Your task to perform on an android device: View the shopping cart on costco. Add "usb-c" to the cart on costco Image 0: 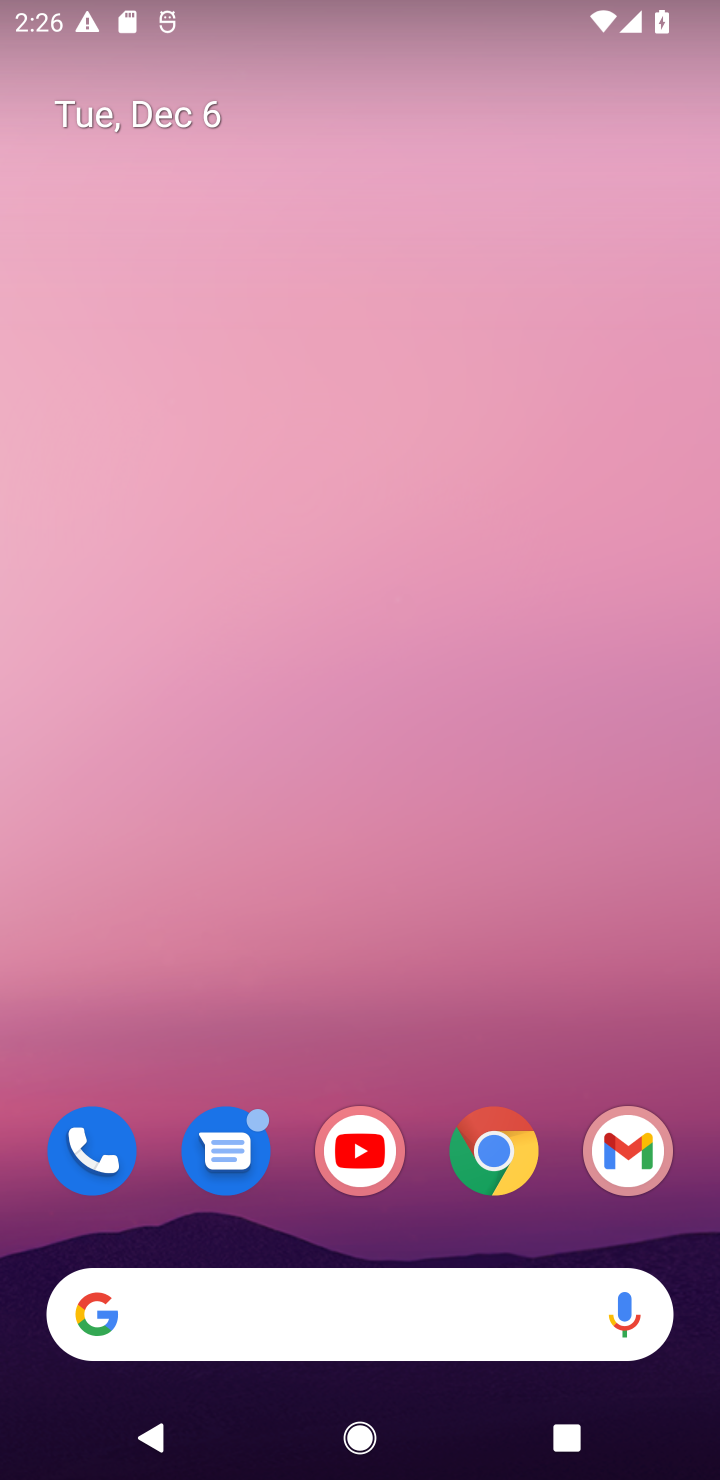
Step 0: click (490, 1164)
Your task to perform on an android device: View the shopping cart on costco. Add "usb-c" to the cart on costco Image 1: 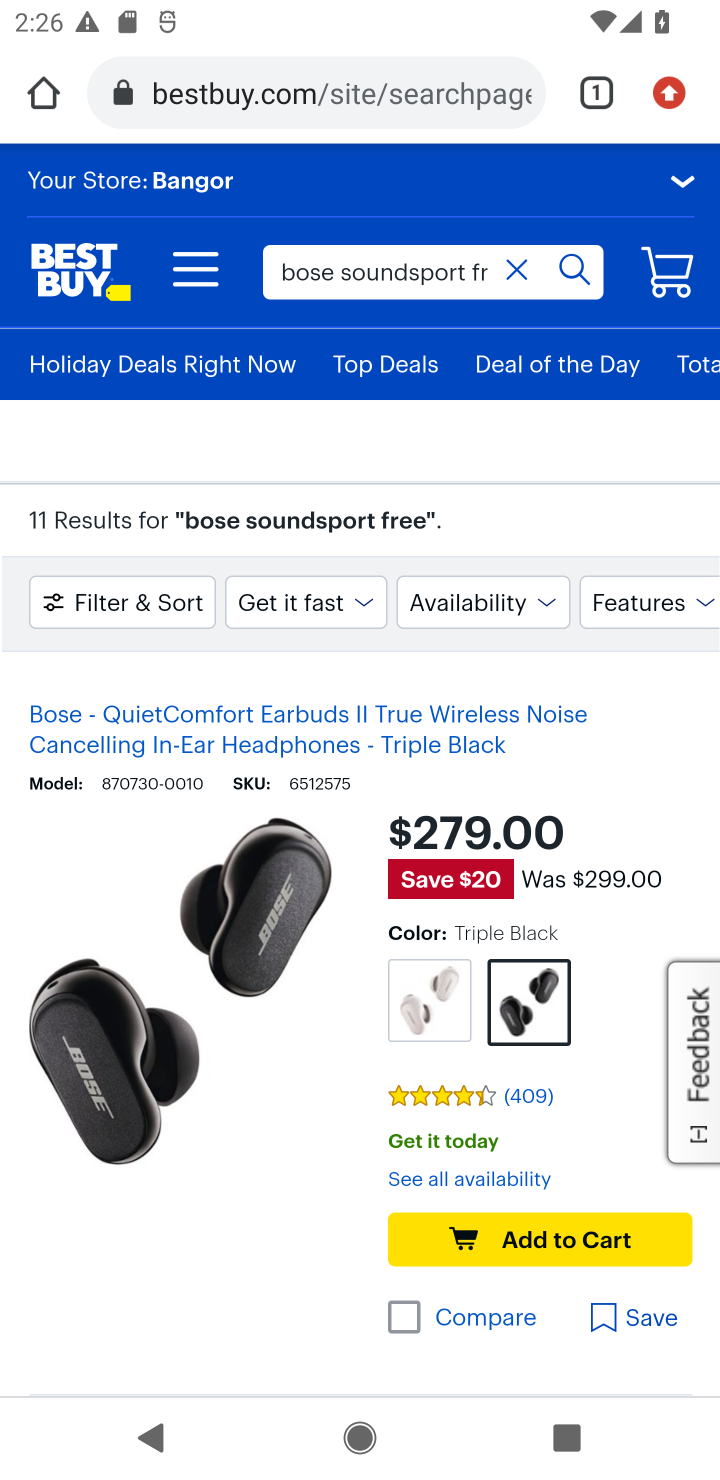
Step 1: click (293, 101)
Your task to perform on an android device: View the shopping cart on costco. Add "usb-c" to the cart on costco Image 2: 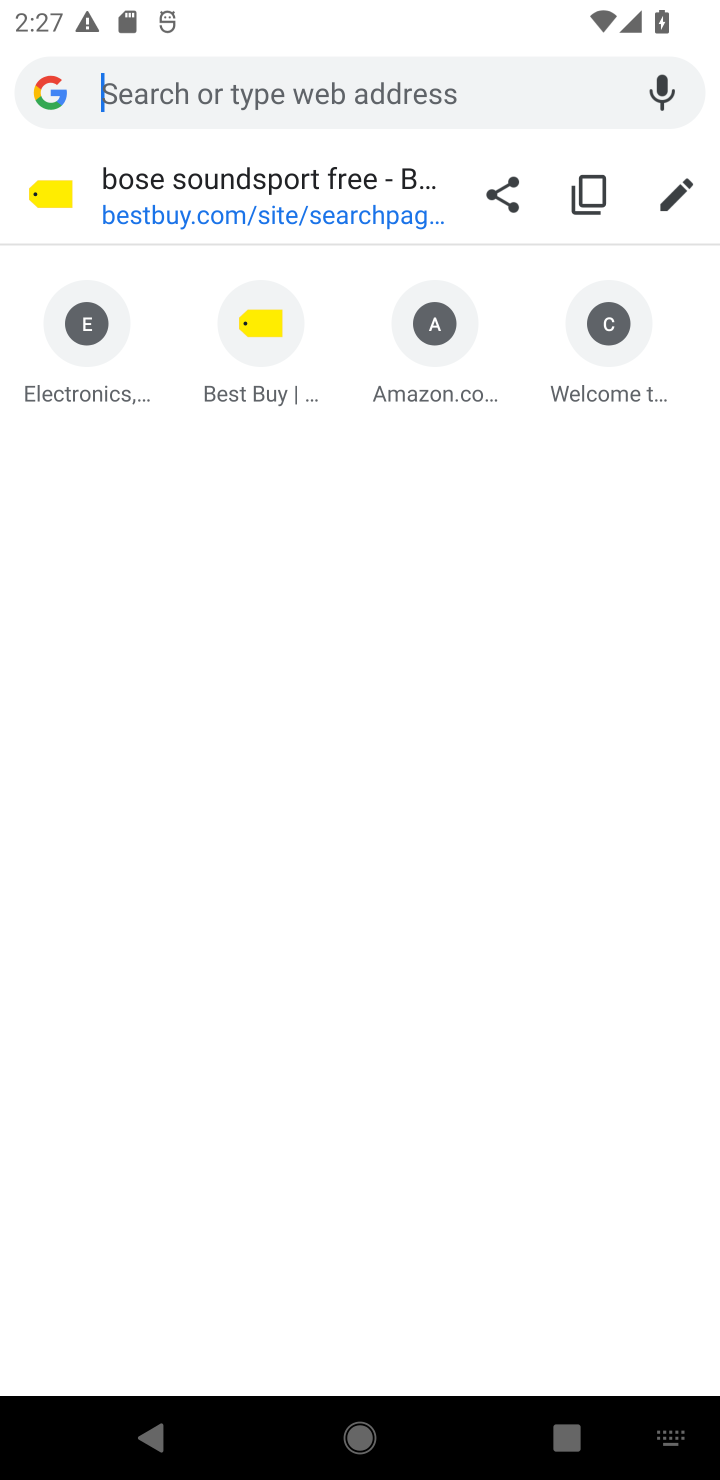
Step 2: type "costco.com"
Your task to perform on an android device: View the shopping cart on costco. Add "usb-c" to the cart on costco Image 3: 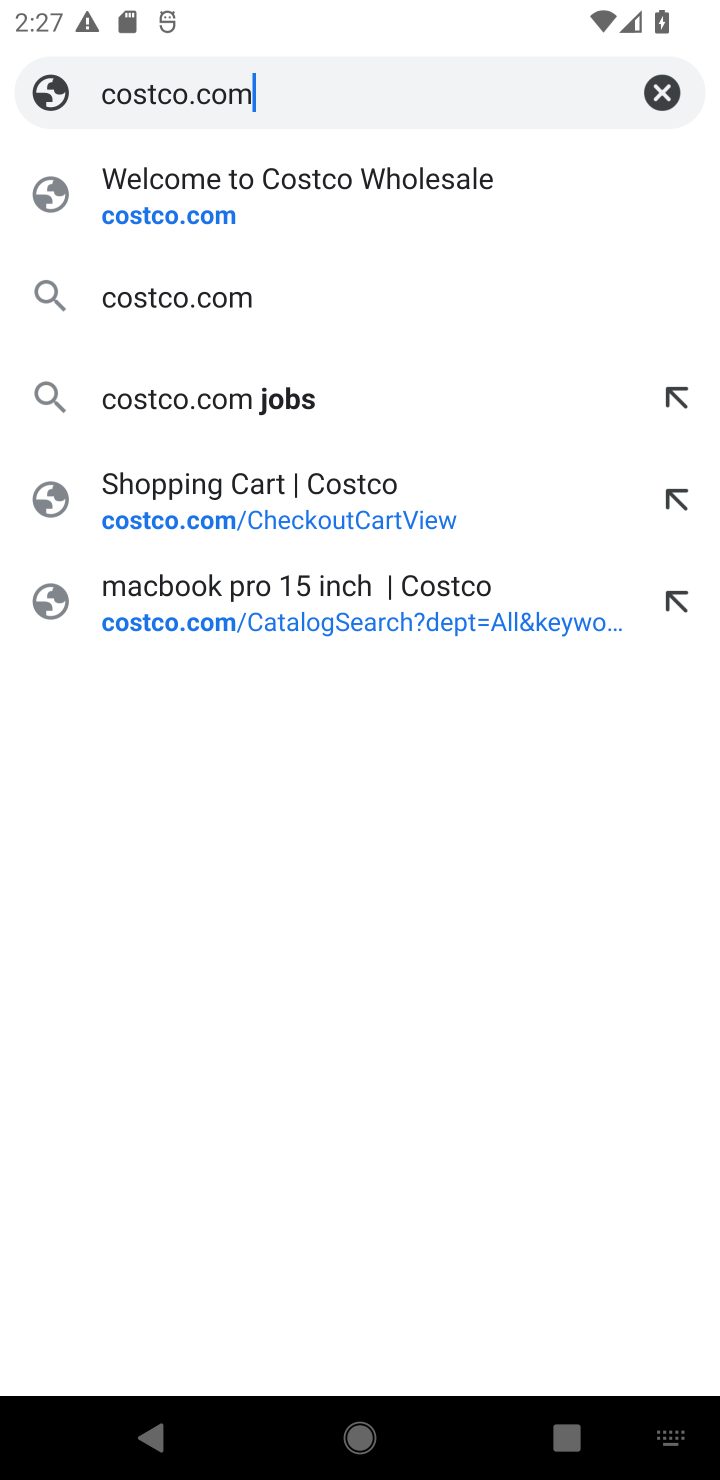
Step 3: click (157, 235)
Your task to perform on an android device: View the shopping cart on costco. Add "usb-c" to the cart on costco Image 4: 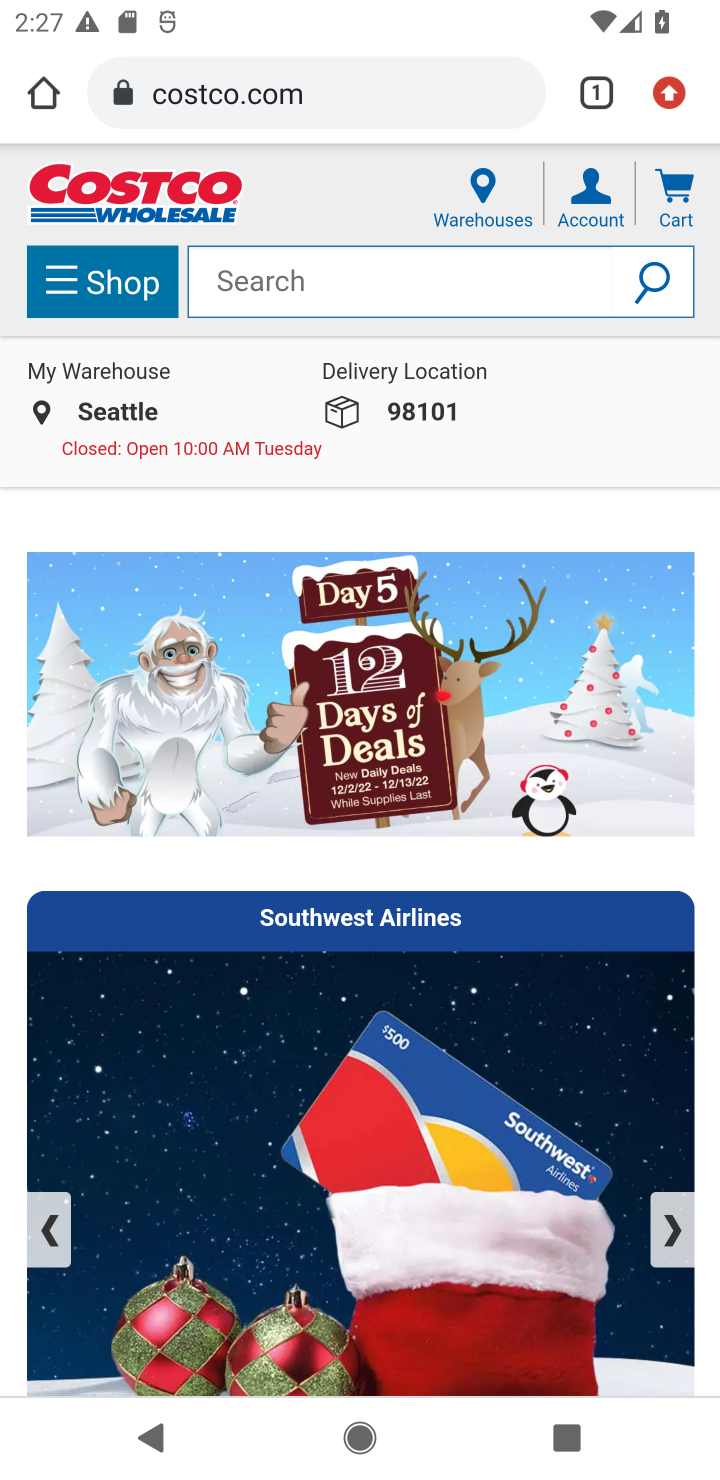
Step 4: click (664, 190)
Your task to perform on an android device: View the shopping cart on costco. Add "usb-c" to the cart on costco Image 5: 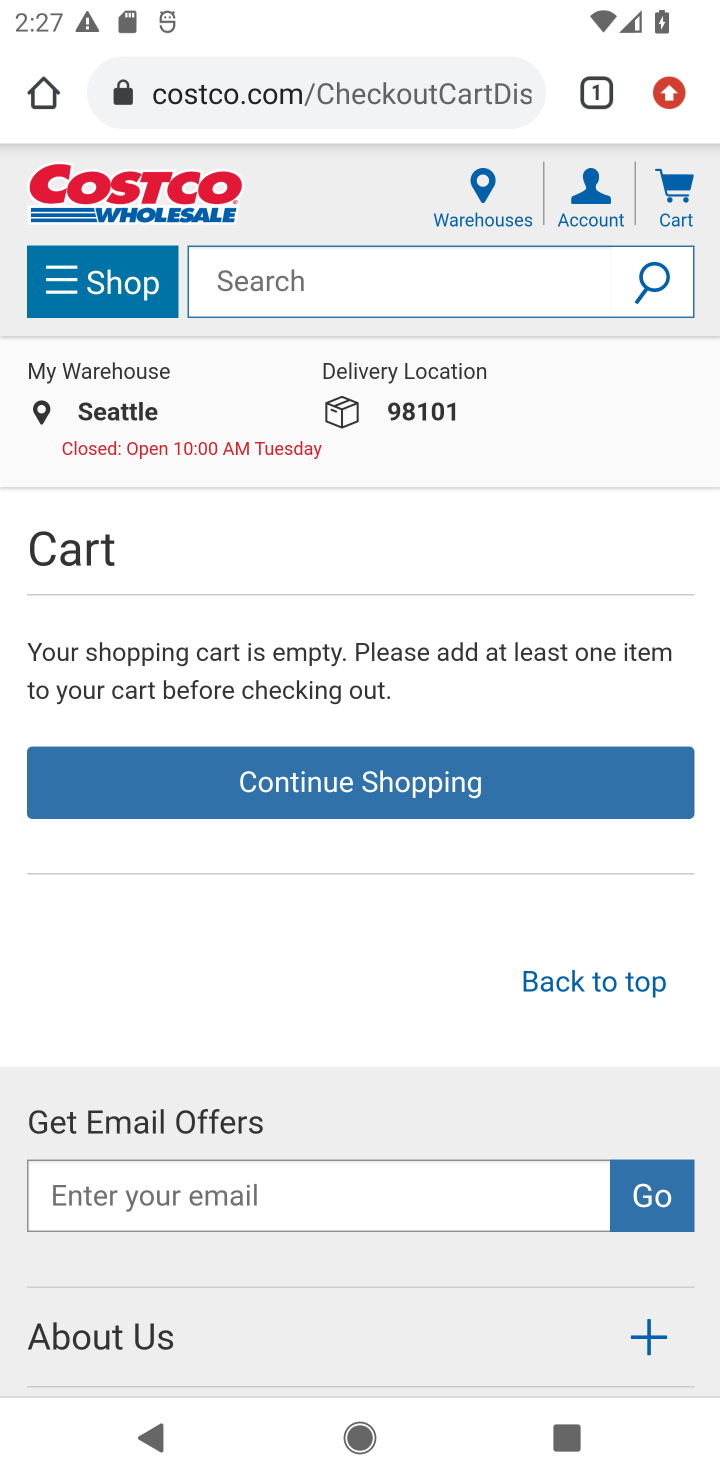
Step 5: click (239, 274)
Your task to perform on an android device: View the shopping cart on costco. Add "usb-c" to the cart on costco Image 6: 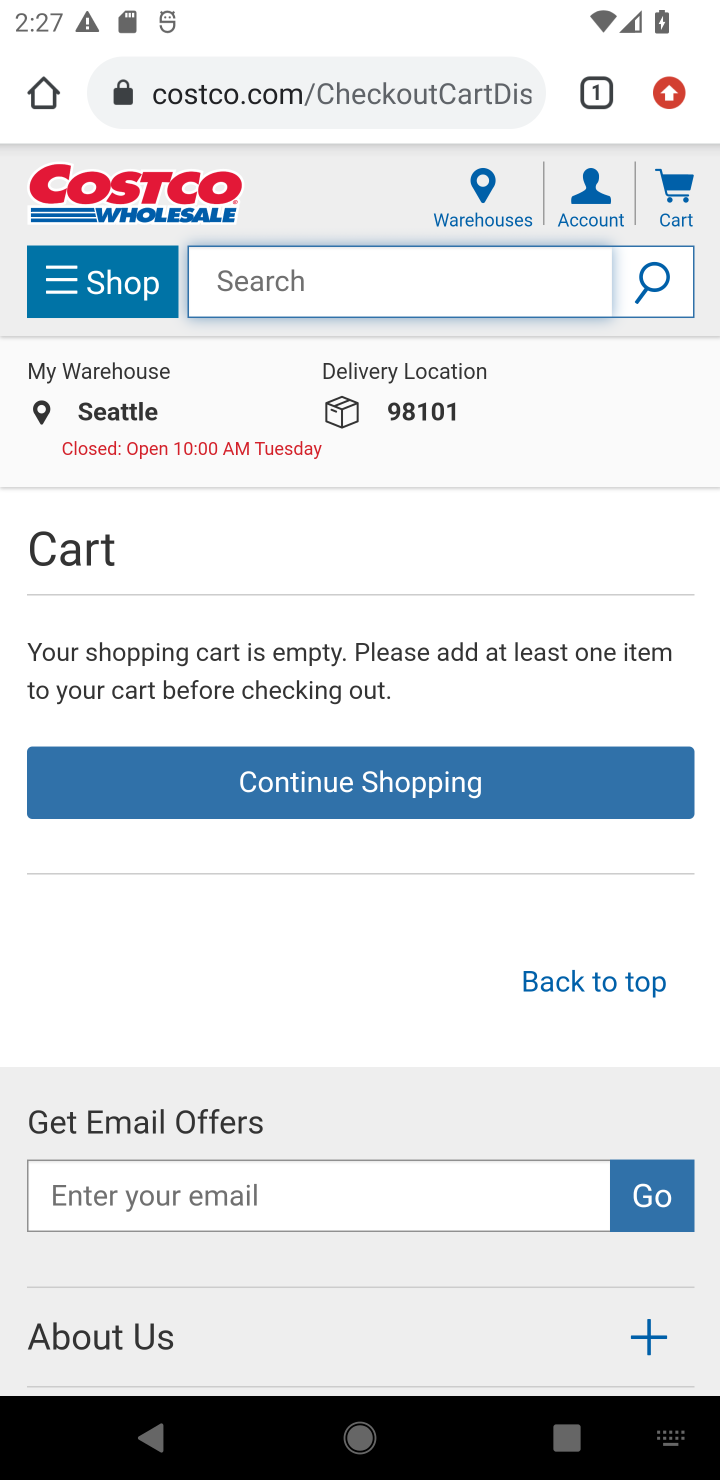
Step 6: type "usb-c"
Your task to perform on an android device: View the shopping cart on costco. Add "usb-c" to the cart on costco Image 7: 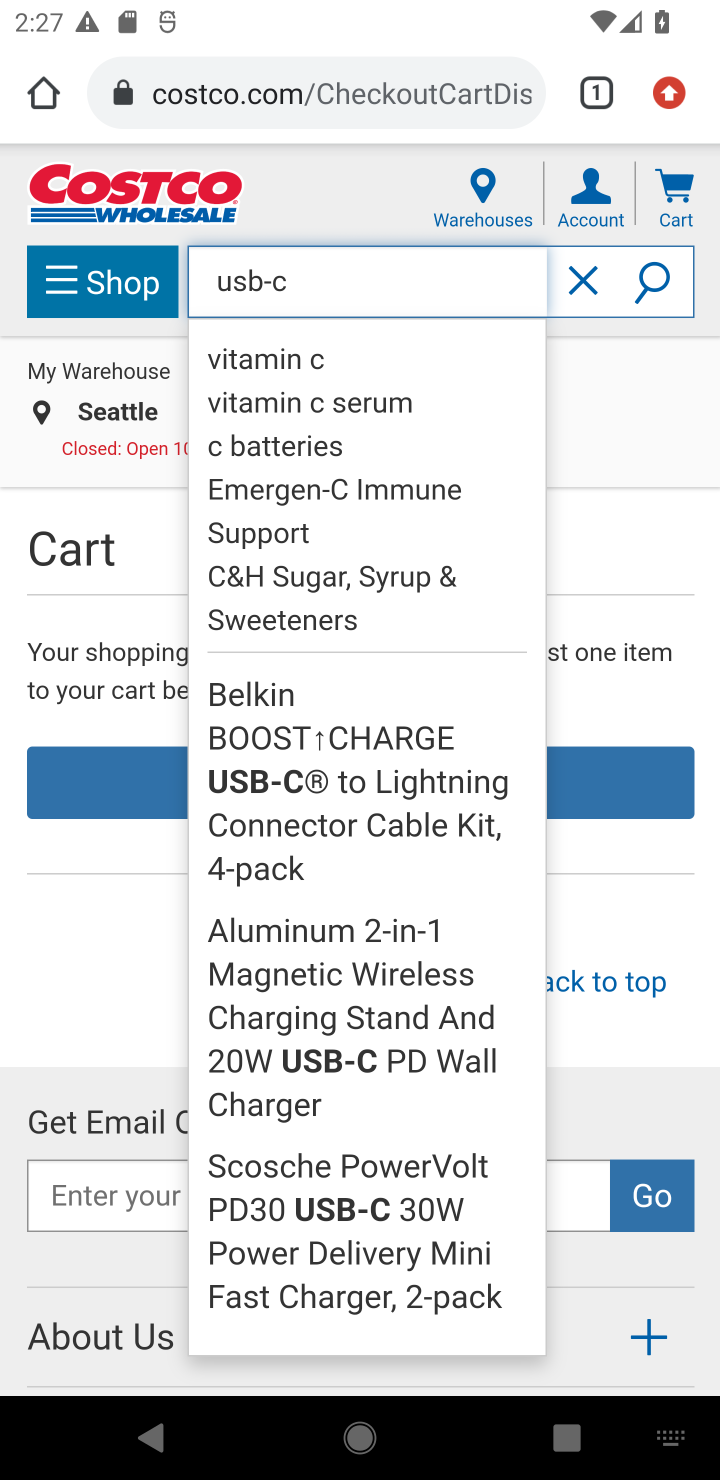
Step 7: click (655, 283)
Your task to perform on an android device: View the shopping cart on costco. Add "usb-c" to the cart on costco Image 8: 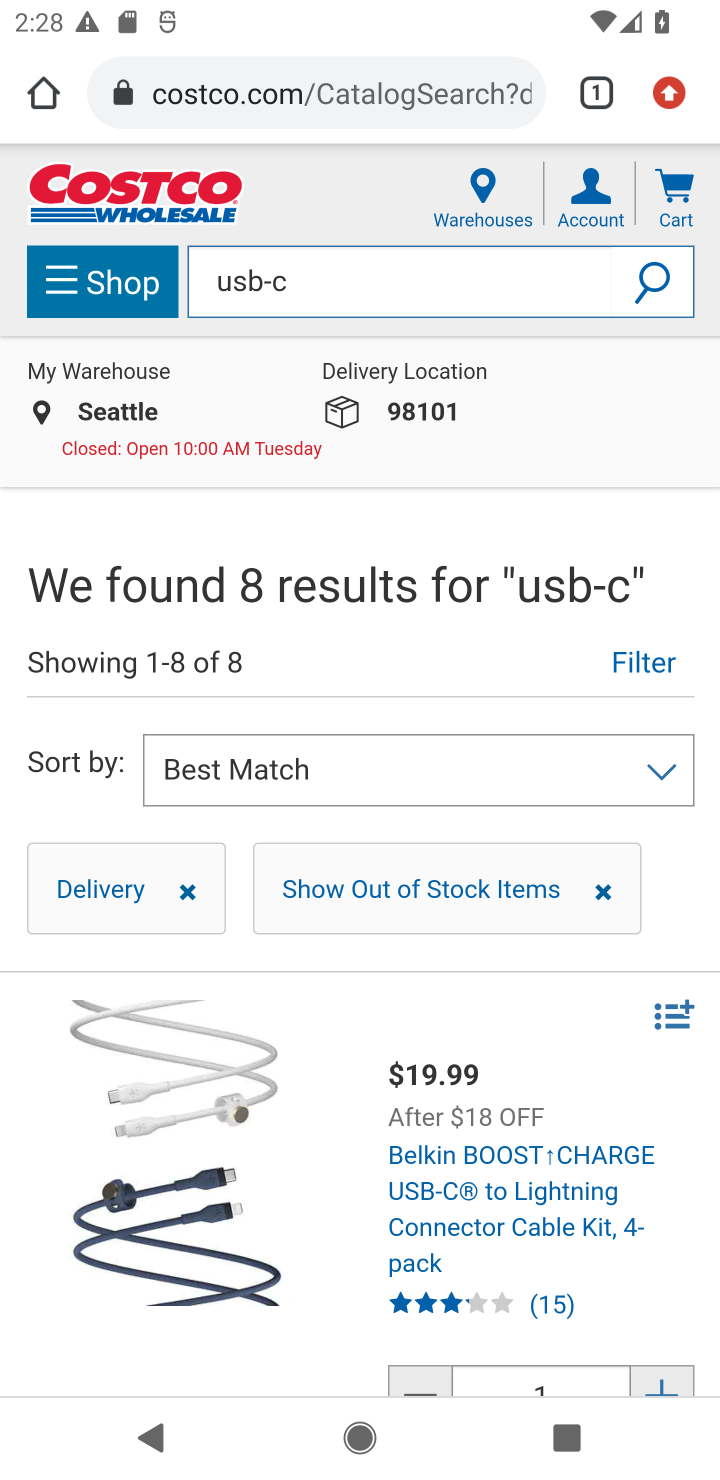
Step 8: drag from (269, 1017) to (303, 484)
Your task to perform on an android device: View the shopping cart on costco. Add "usb-c" to the cart on costco Image 9: 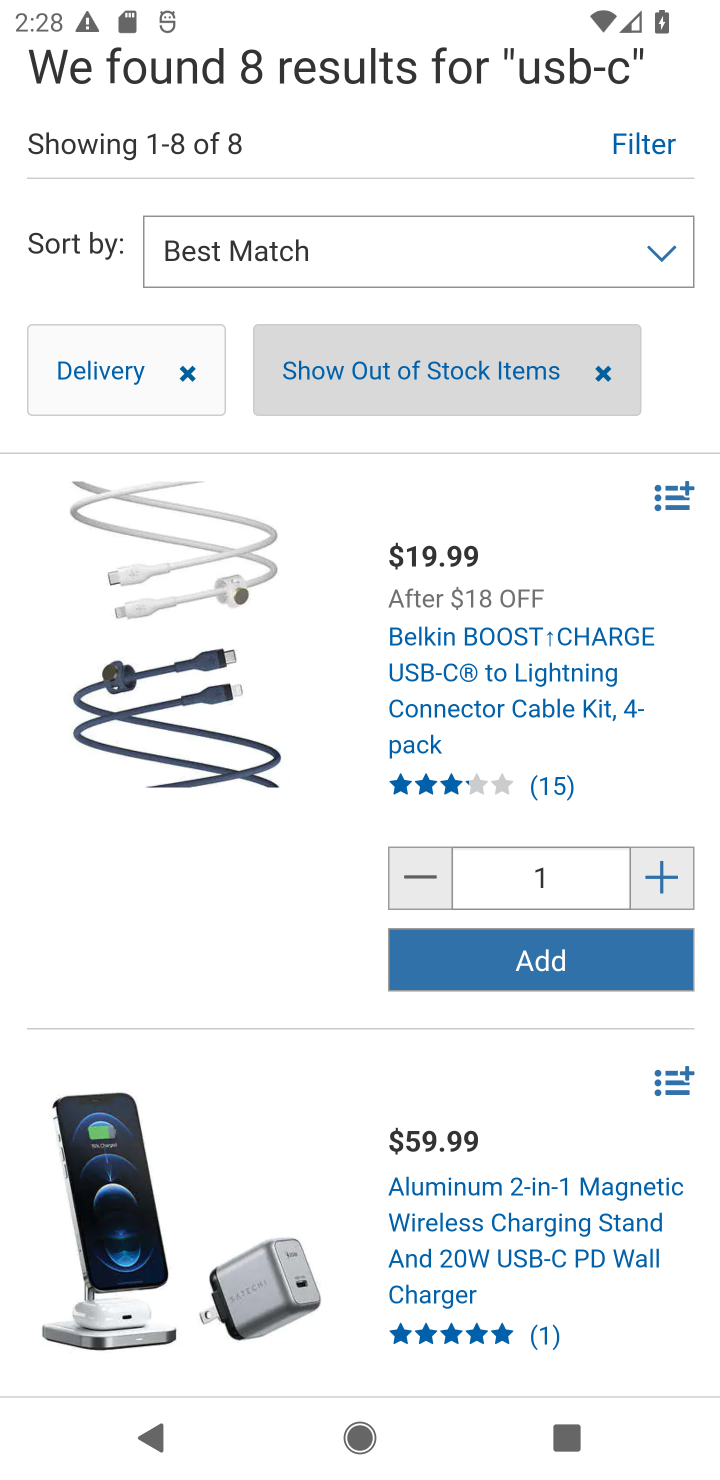
Step 9: click (475, 974)
Your task to perform on an android device: View the shopping cart on costco. Add "usb-c" to the cart on costco Image 10: 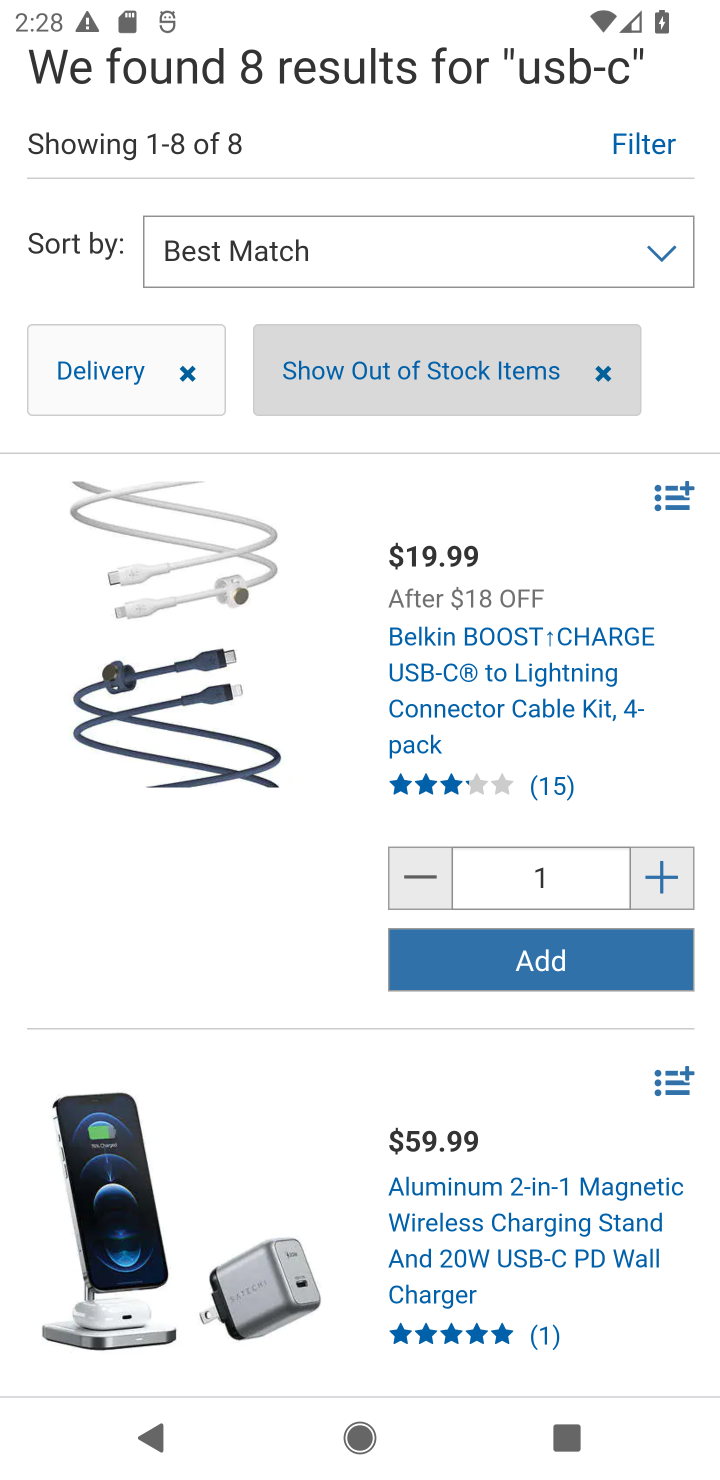
Step 10: task complete